Your task to perform on an android device: What's the weather today? Image 0: 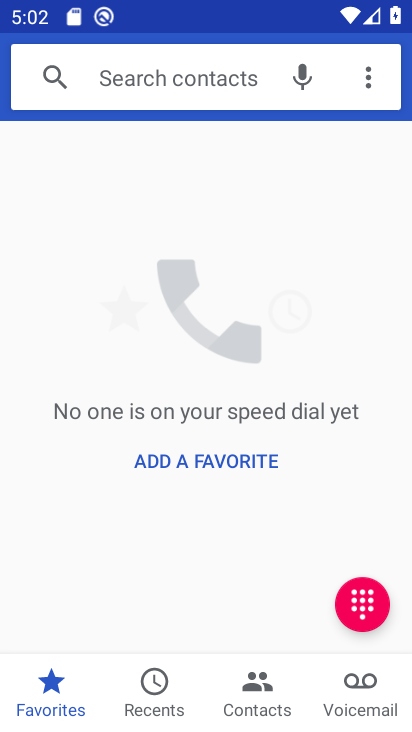
Step 0: press home button
Your task to perform on an android device: What's the weather today? Image 1: 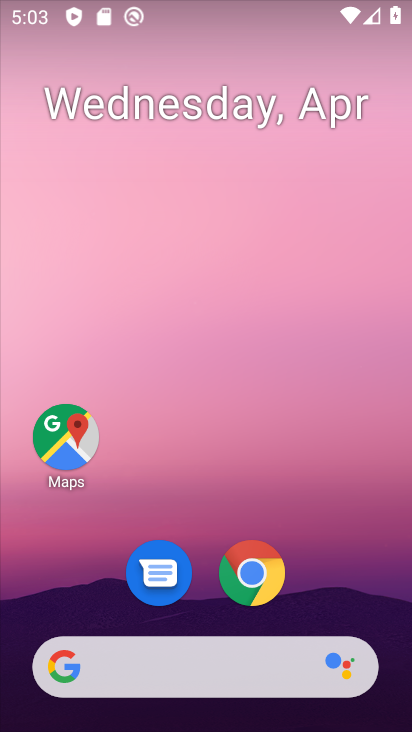
Step 1: drag from (212, 285) to (212, 139)
Your task to perform on an android device: What's the weather today? Image 2: 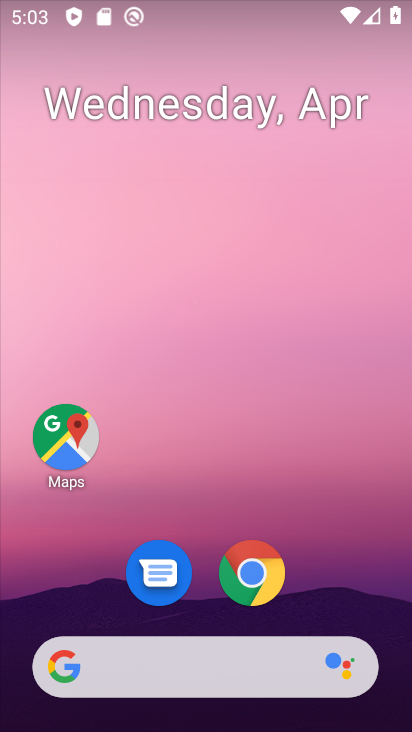
Step 2: drag from (204, 610) to (222, 142)
Your task to perform on an android device: What's the weather today? Image 3: 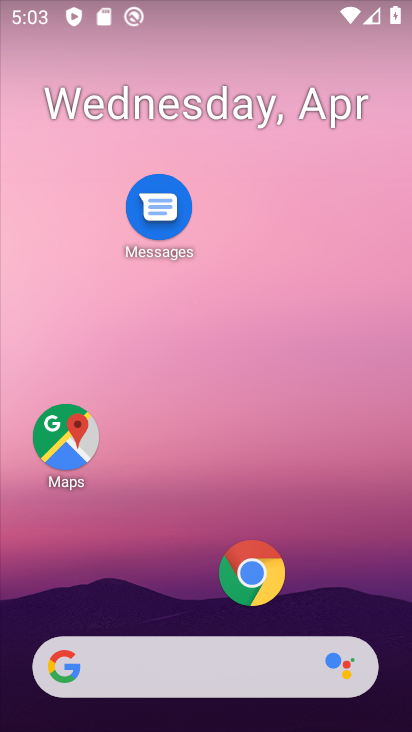
Step 3: click (247, 258)
Your task to perform on an android device: What's the weather today? Image 4: 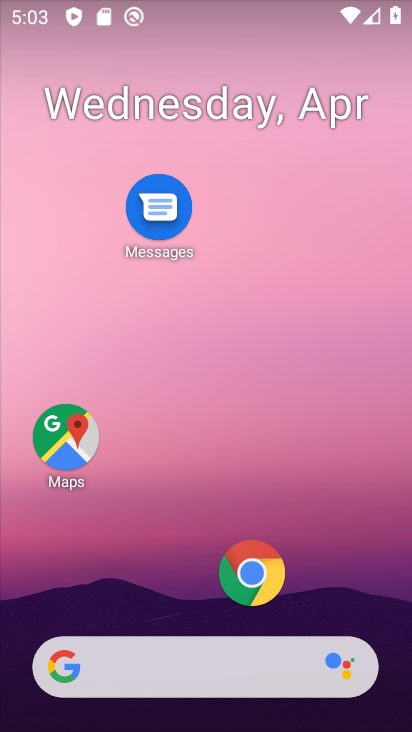
Step 4: drag from (192, 279) to (192, 150)
Your task to perform on an android device: What's the weather today? Image 5: 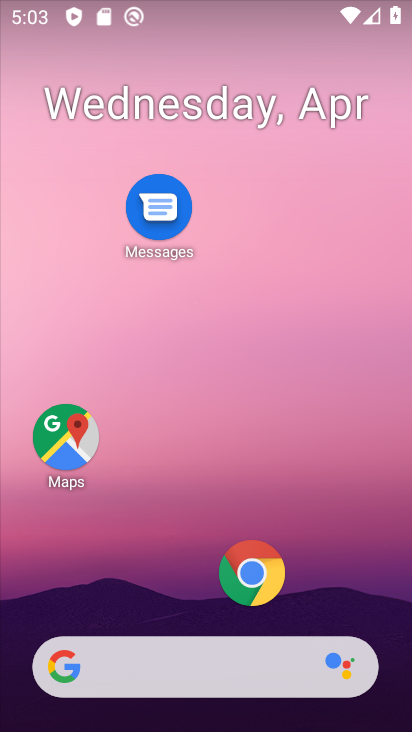
Step 5: drag from (184, 601) to (226, 169)
Your task to perform on an android device: What's the weather today? Image 6: 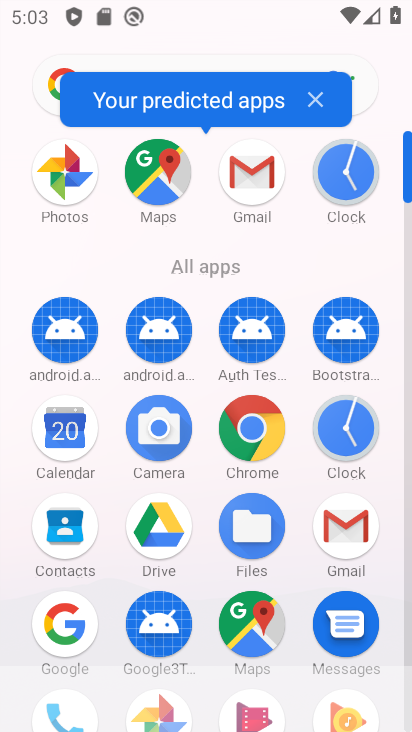
Step 6: click (66, 628)
Your task to perform on an android device: What's the weather today? Image 7: 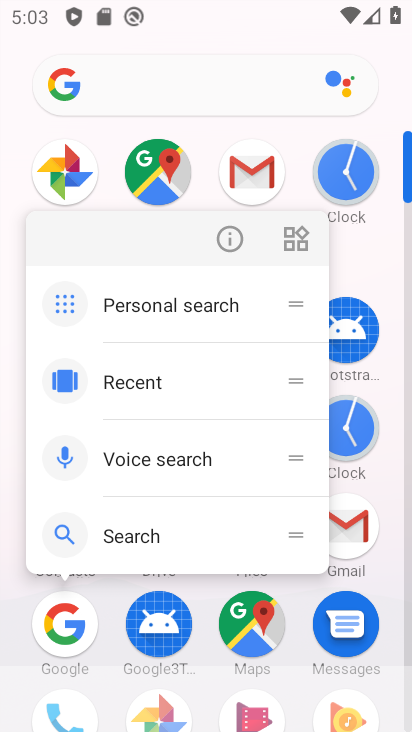
Step 7: click (64, 614)
Your task to perform on an android device: What's the weather today? Image 8: 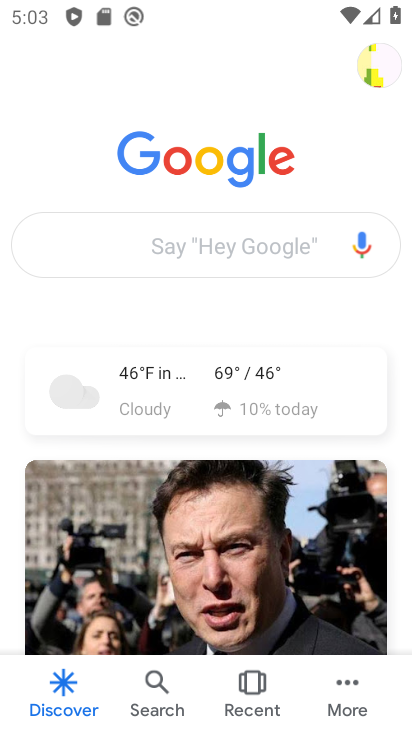
Step 8: click (165, 392)
Your task to perform on an android device: What's the weather today? Image 9: 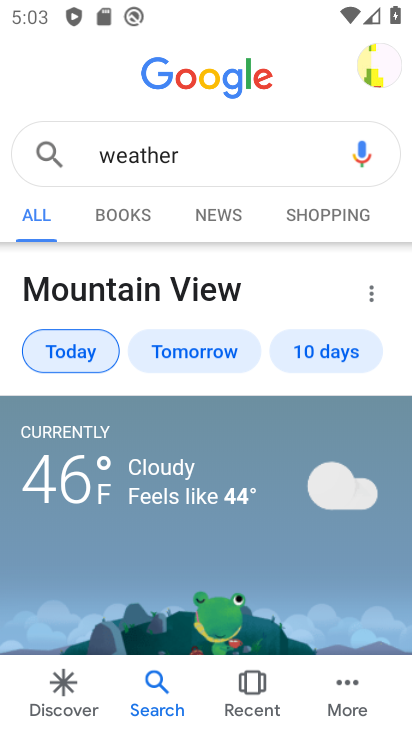
Step 9: task complete